Your task to perform on an android device: See recent photos Image 0: 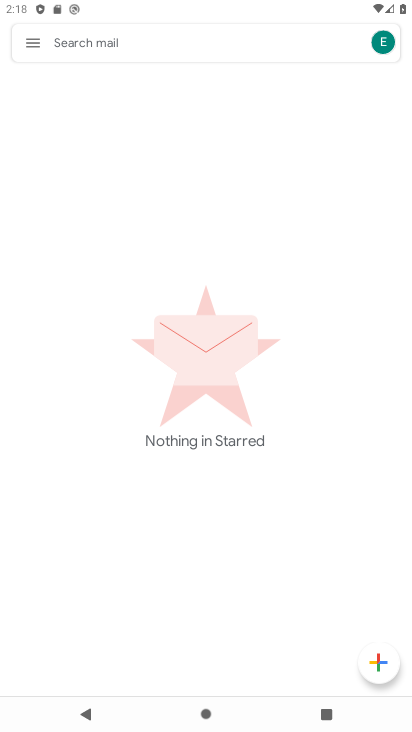
Step 0: press home button
Your task to perform on an android device: See recent photos Image 1: 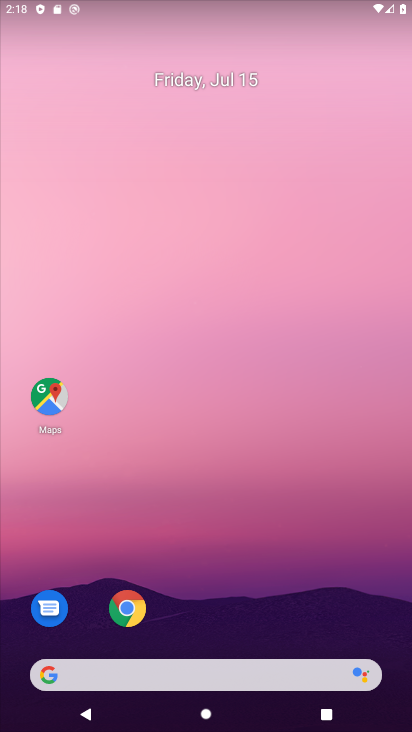
Step 1: drag from (288, 618) to (231, 0)
Your task to perform on an android device: See recent photos Image 2: 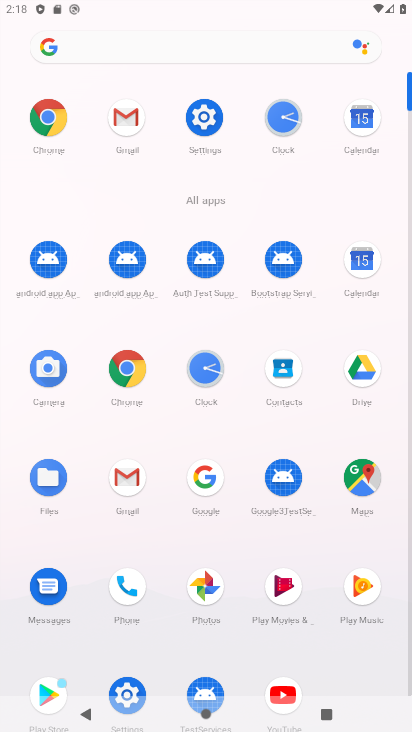
Step 2: click (201, 586)
Your task to perform on an android device: See recent photos Image 3: 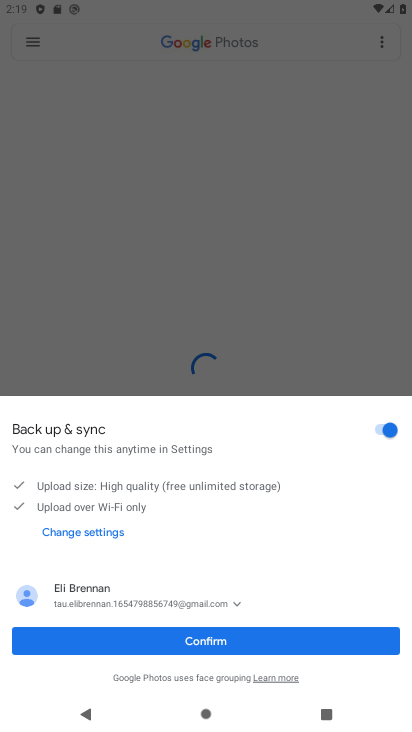
Step 3: click (293, 637)
Your task to perform on an android device: See recent photos Image 4: 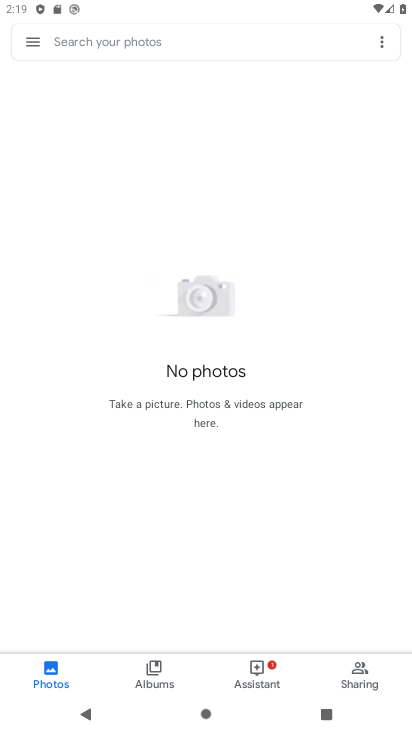
Step 4: task complete